Your task to perform on an android device: set the timer Image 0: 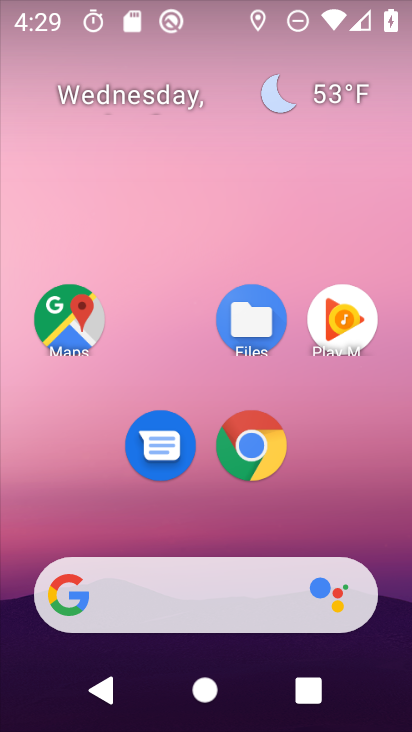
Step 0: drag from (306, 407) to (284, 114)
Your task to perform on an android device: set the timer Image 1: 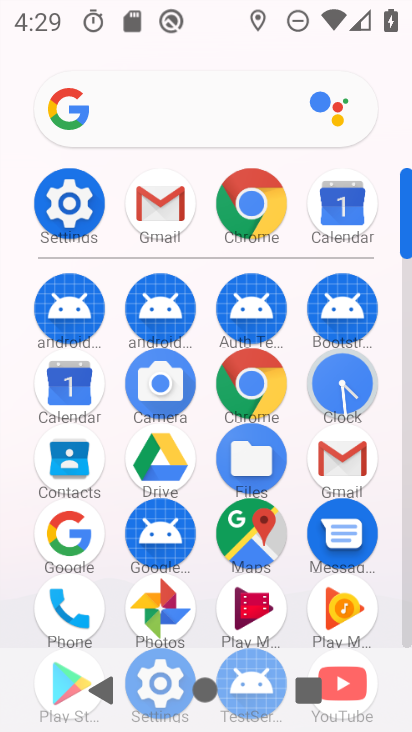
Step 1: click (343, 392)
Your task to perform on an android device: set the timer Image 2: 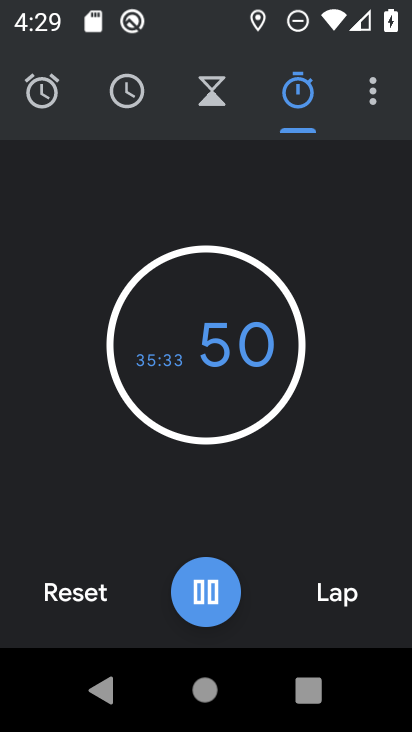
Step 2: click (139, 101)
Your task to perform on an android device: set the timer Image 3: 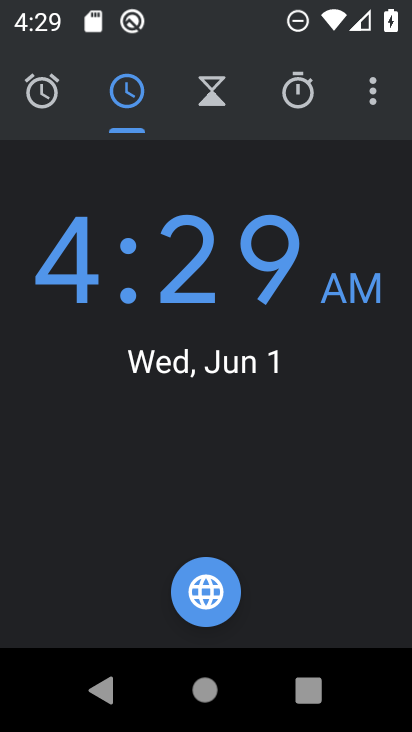
Step 3: click (220, 84)
Your task to perform on an android device: set the timer Image 4: 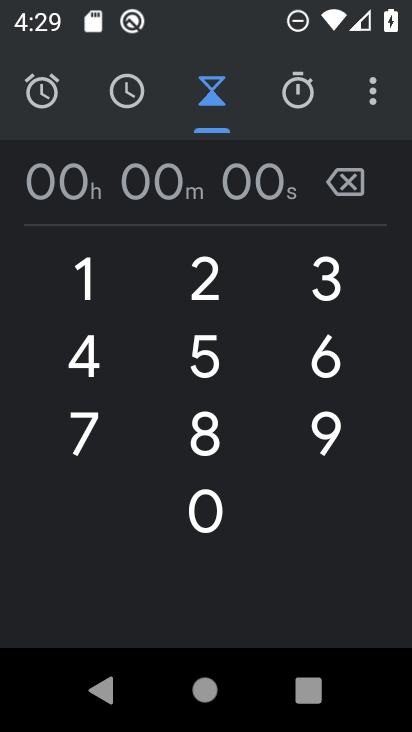
Step 4: task complete